Your task to perform on an android device: Open the Play Movies app and select the watchlist tab. Image 0: 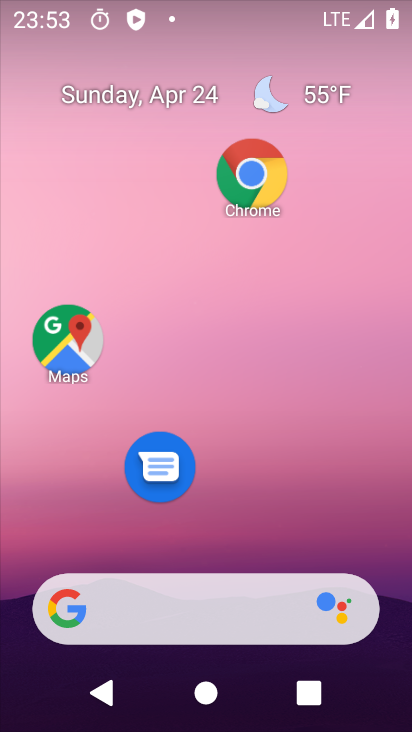
Step 0: drag from (268, 507) to (220, 23)
Your task to perform on an android device: Open the Play Movies app and select the watchlist tab. Image 1: 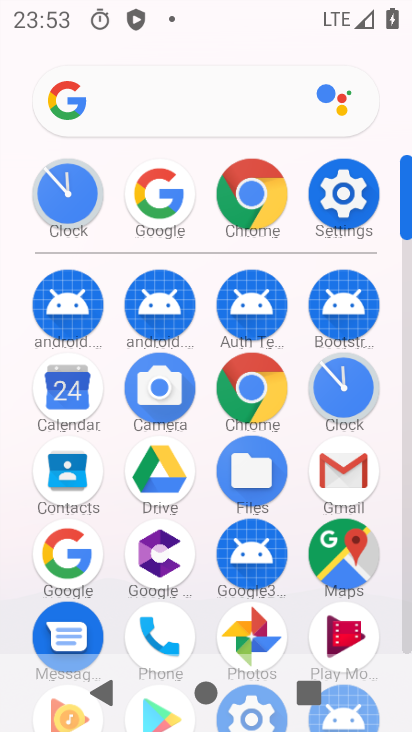
Step 1: click (337, 626)
Your task to perform on an android device: Open the Play Movies app and select the watchlist tab. Image 2: 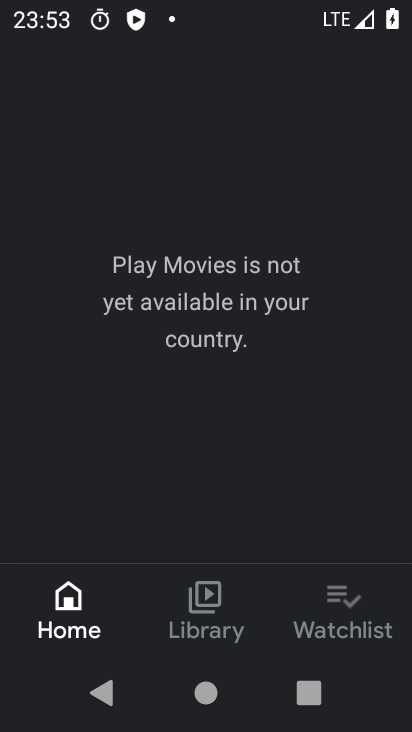
Step 2: click (356, 612)
Your task to perform on an android device: Open the Play Movies app and select the watchlist tab. Image 3: 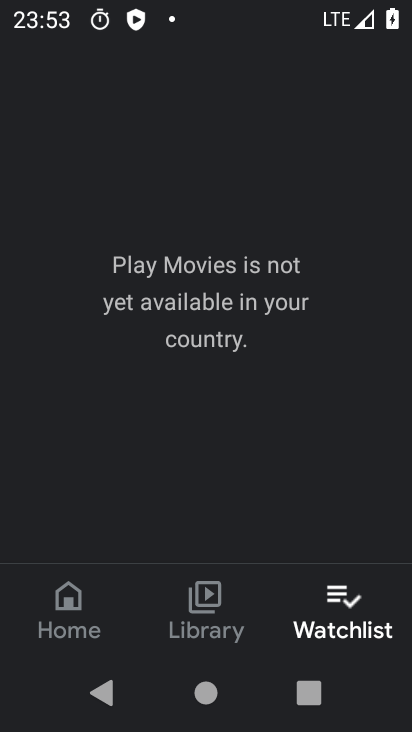
Step 3: task complete